Your task to perform on an android device: Do I have any events today? Image 0: 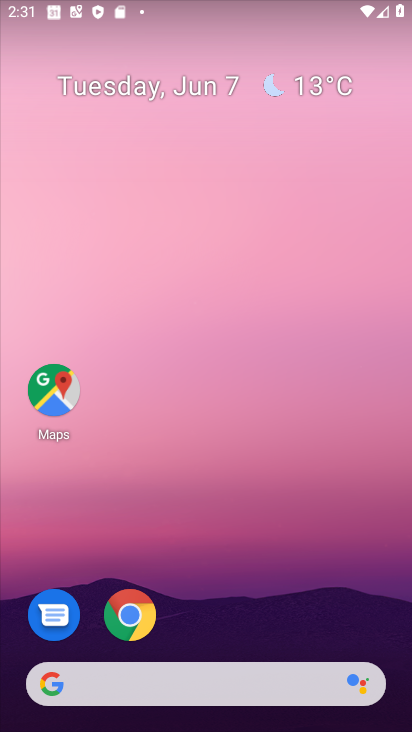
Step 0: drag from (242, 635) to (365, 157)
Your task to perform on an android device: Do I have any events today? Image 1: 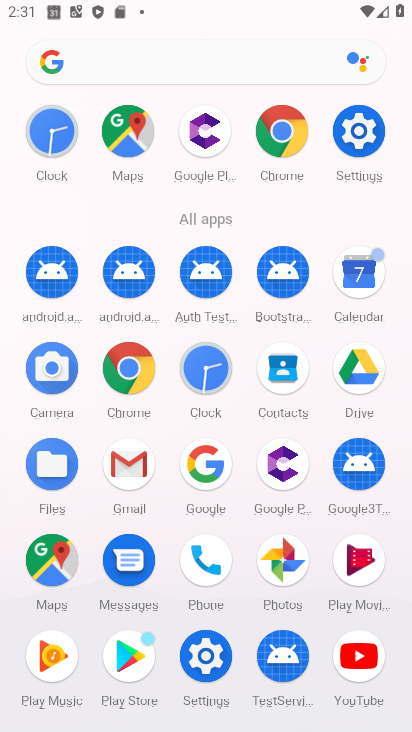
Step 1: click (363, 275)
Your task to perform on an android device: Do I have any events today? Image 2: 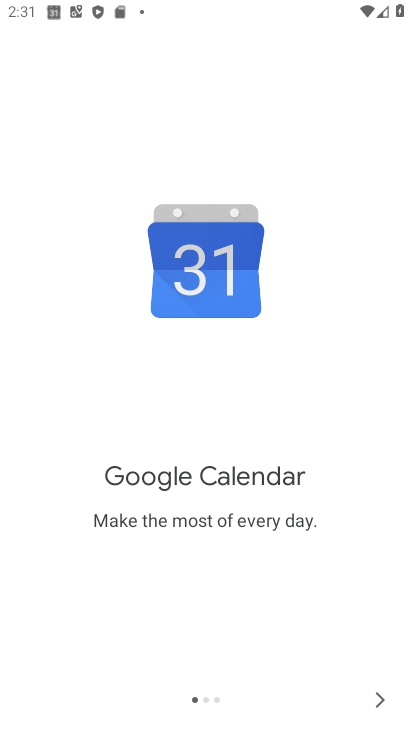
Step 2: click (361, 710)
Your task to perform on an android device: Do I have any events today? Image 3: 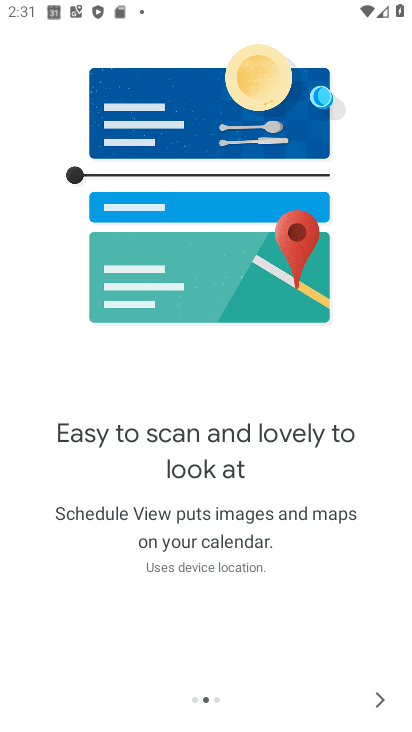
Step 3: click (366, 714)
Your task to perform on an android device: Do I have any events today? Image 4: 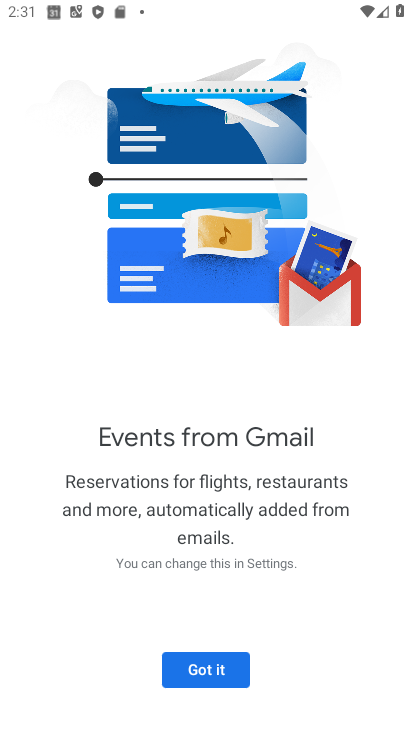
Step 4: click (224, 668)
Your task to perform on an android device: Do I have any events today? Image 5: 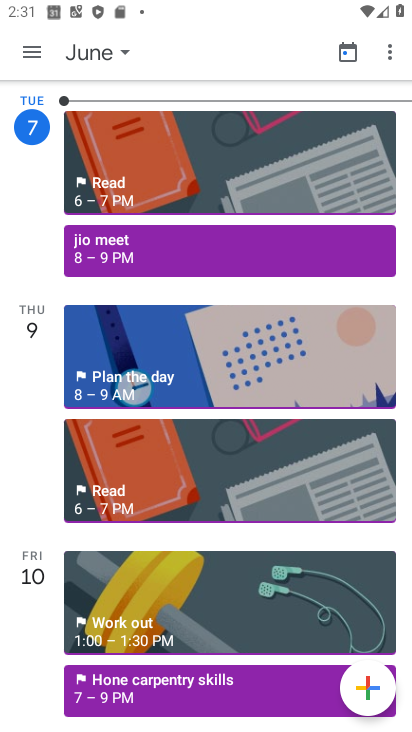
Step 5: task complete